Your task to perform on an android device: Open the web browser Image 0: 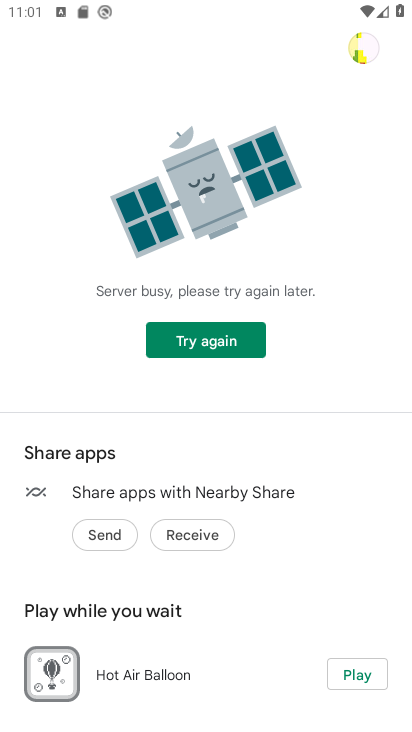
Step 0: press home button
Your task to perform on an android device: Open the web browser Image 1: 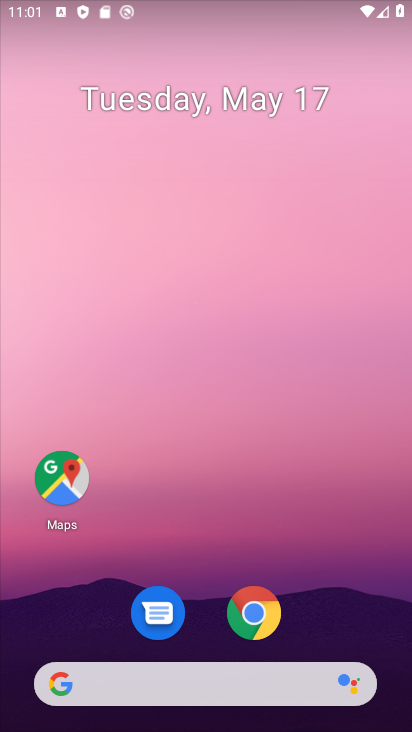
Step 1: click (250, 612)
Your task to perform on an android device: Open the web browser Image 2: 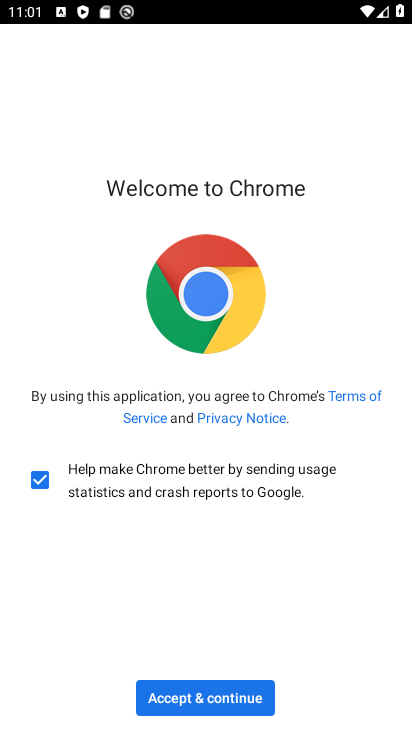
Step 2: click (186, 712)
Your task to perform on an android device: Open the web browser Image 3: 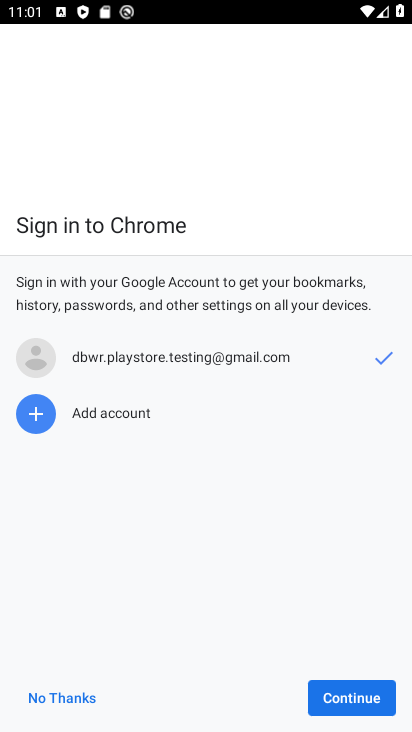
Step 3: click (362, 707)
Your task to perform on an android device: Open the web browser Image 4: 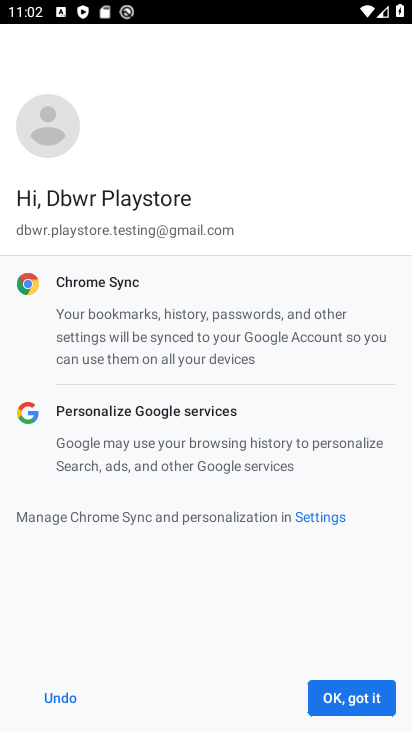
Step 4: click (339, 700)
Your task to perform on an android device: Open the web browser Image 5: 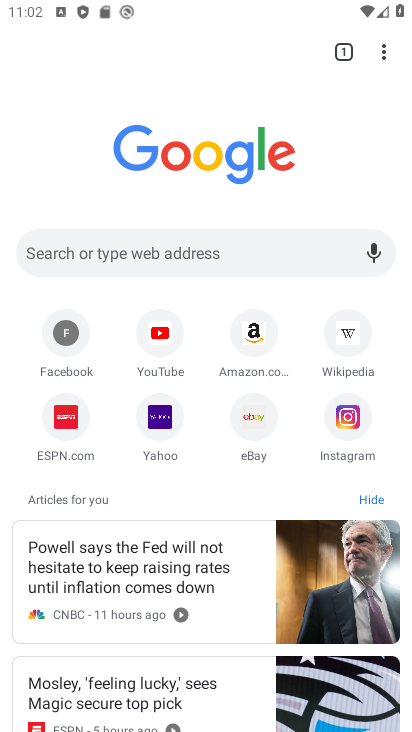
Step 5: click (234, 260)
Your task to perform on an android device: Open the web browser Image 6: 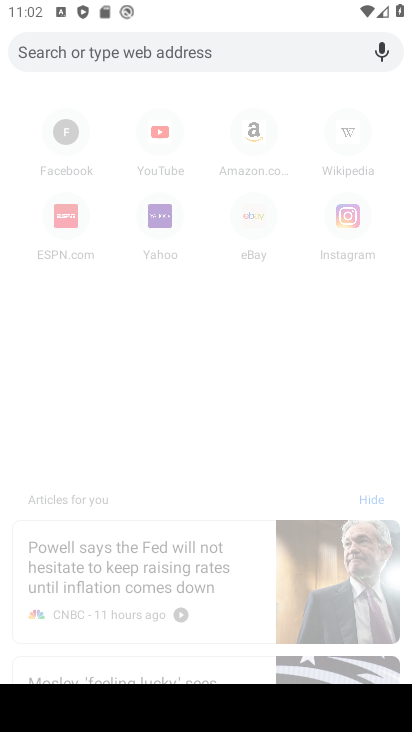
Step 6: task complete